Your task to perform on an android device: open sync settings in chrome Image 0: 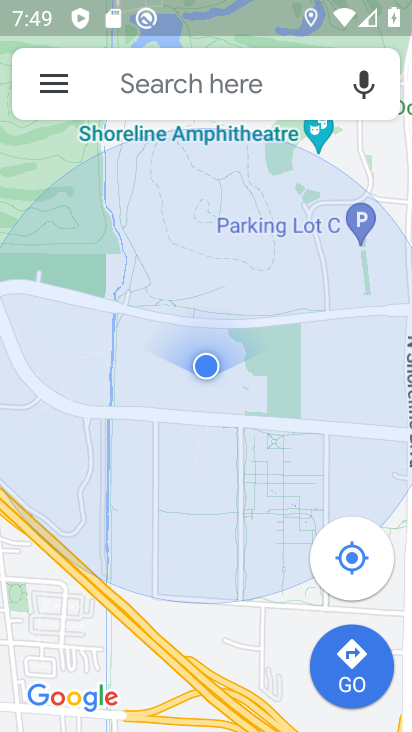
Step 0: press back button
Your task to perform on an android device: open sync settings in chrome Image 1: 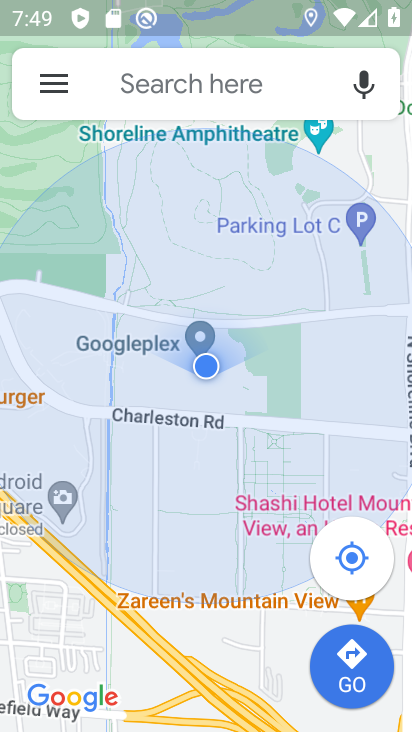
Step 1: press back button
Your task to perform on an android device: open sync settings in chrome Image 2: 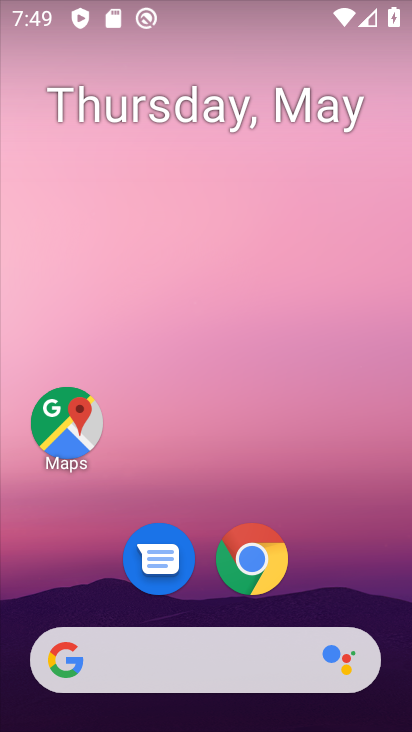
Step 2: click (252, 561)
Your task to perform on an android device: open sync settings in chrome Image 3: 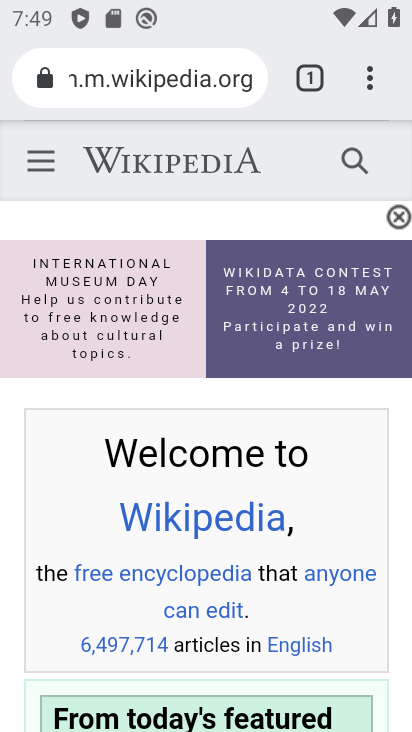
Step 3: click (371, 76)
Your task to perform on an android device: open sync settings in chrome Image 4: 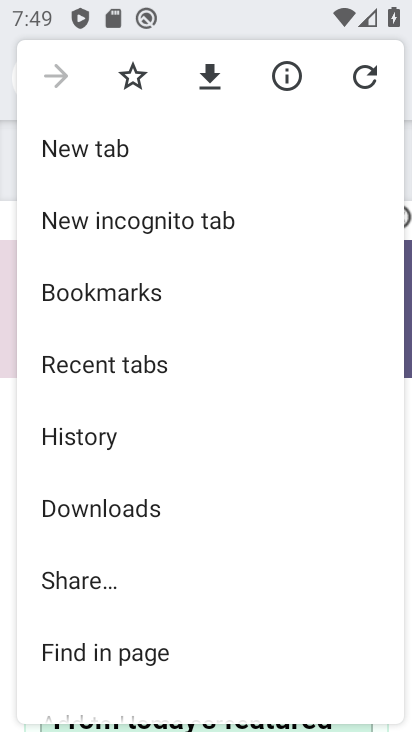
Step 4: drag from (155, 559) to (171, 444)
Your task to perform on an android device: open sync settings in chrome Image 5: 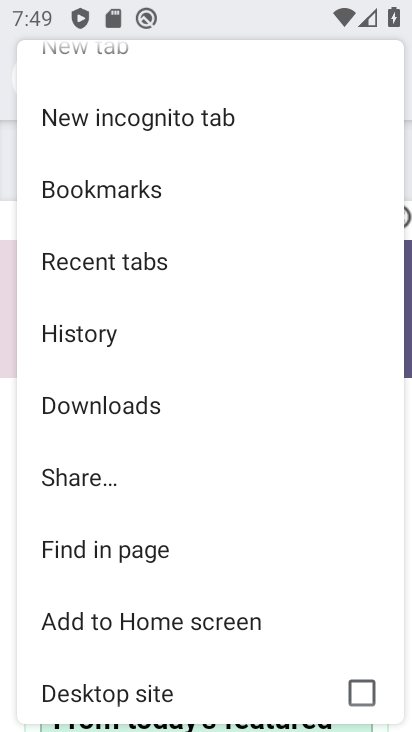
Step 5: drag from (120, 578) to (183, 455)
Your task to perform on an android device: open sync settings in chrome Image 6: 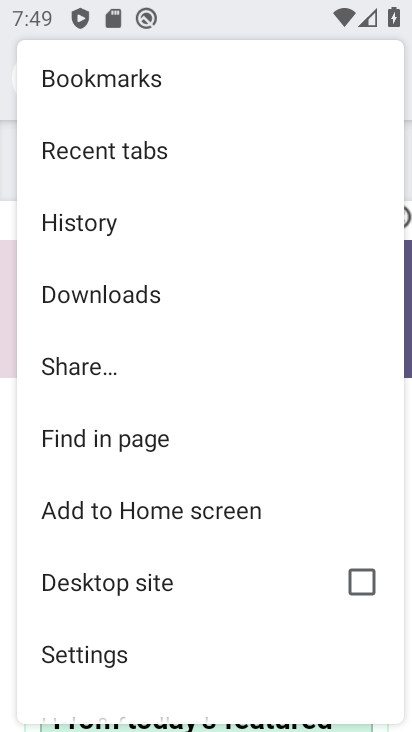
Step 6: click (100, 648)
Your task to perform on an android device: open sync settings in chrome Image 7: 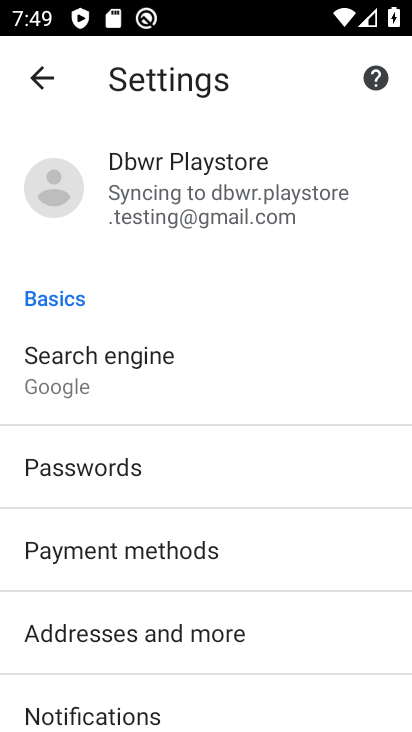
Step 7: drag from (113, 525) to (186, 421)
Your task to perform on an android device: open sync settings in chrome Image 8: 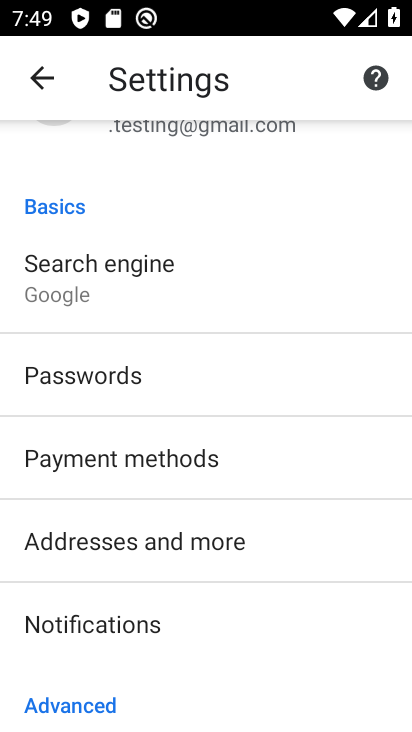
Step 8: drag from (120, 536) to (174, 429)
Your task to perform on an android device: open sync settings in chrome Image 9: 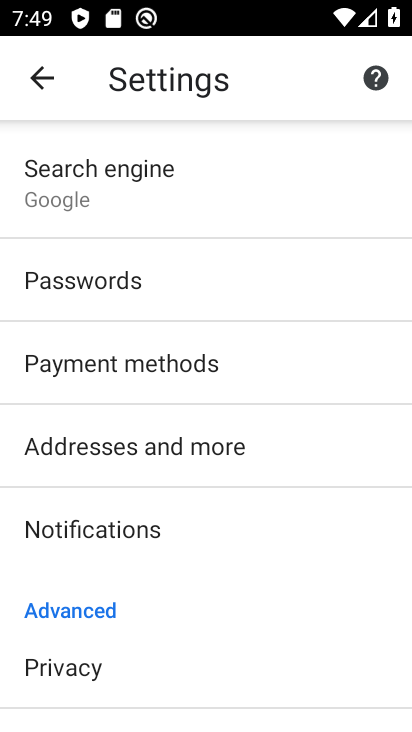
Step 9: drag from (141, 591) to (183, 466)
Your task to perform on an android device: open sync settings in chrome Image 10: 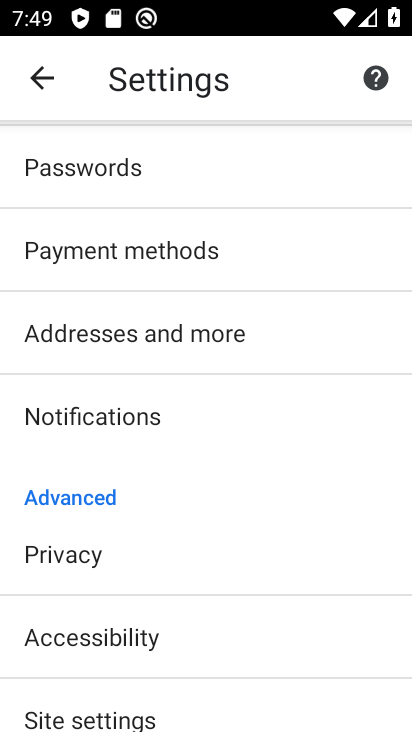
Step 10: drag from (110, 629) to (213, 487)
Your task to perform on an android device: open sync settings in chrome Image 11: 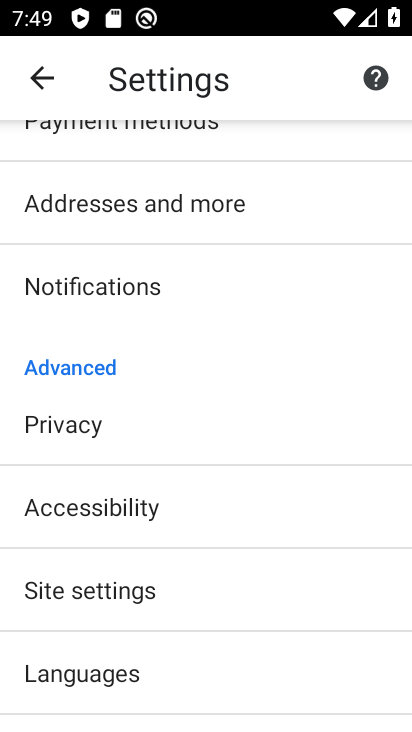
Step 11: click (134, 589)
Your task to perform on an android device: open sync settings in chrome Image 12: 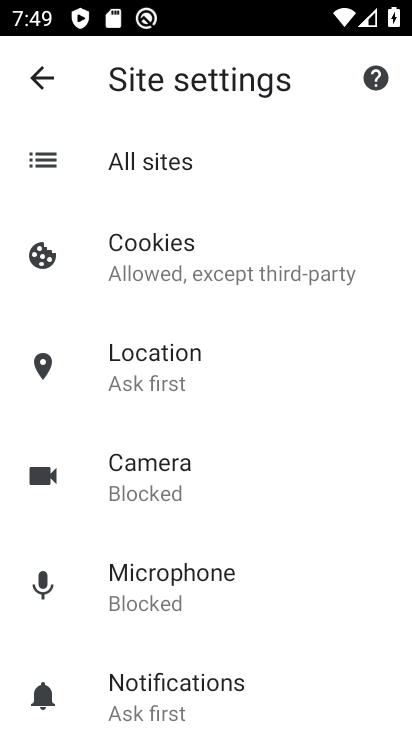
Step 12: drag from (199, 531) to (217, 465)
Your task to perform on an android device: open sync settings in chrome Image 13: 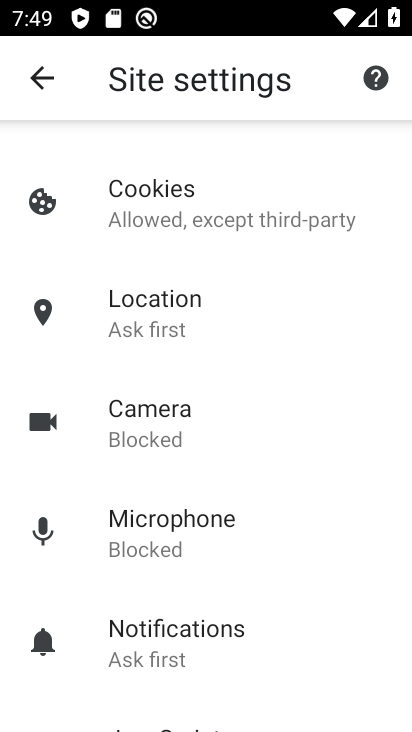
Step 13: drag from (188, 568) to (246, 457)
Your task to perform on an android device: open sync settings in chrome Image 14: 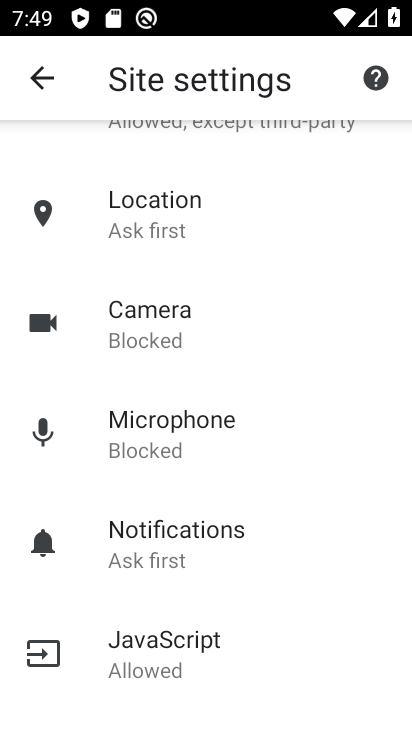
Step 14: drag from (179, 581) to (250, 462)
Your task to perform on an android device: open sync settings in chrome Image 15: 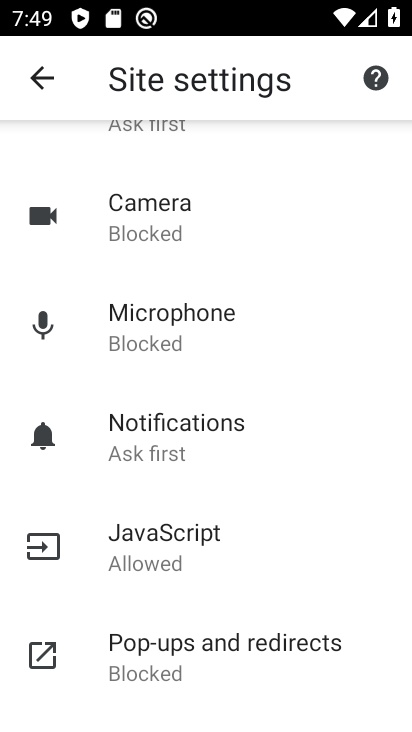
Step 15: drag from (177, 577) to (251, 487)
Your task to perform on an android device: open sync settings in chrome Image 16: 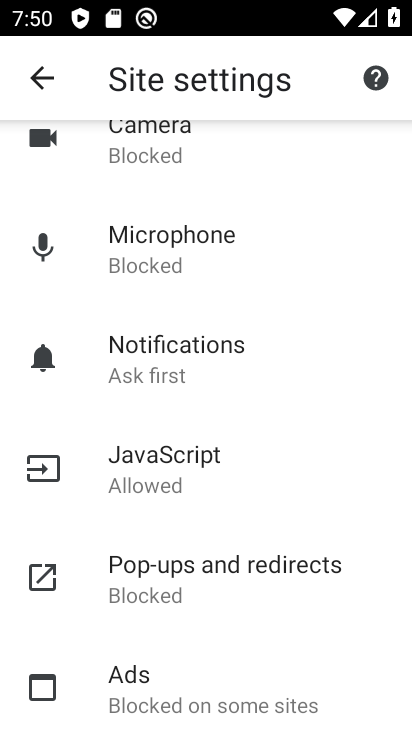
Step 16: drag from (178, 614) to (246, 494)
Your task to perform on an android device: open sync settings in chrome Image 17: 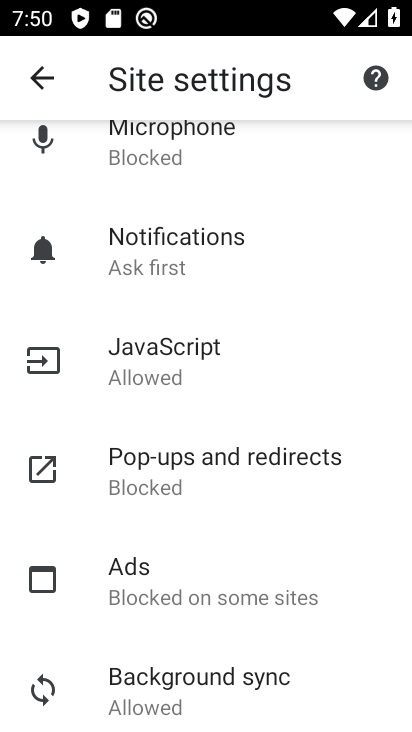
Step 17: drag from (184, 643) to (264, 519)
Your task to perform on an android device: open sync settings in chrome Image 18: 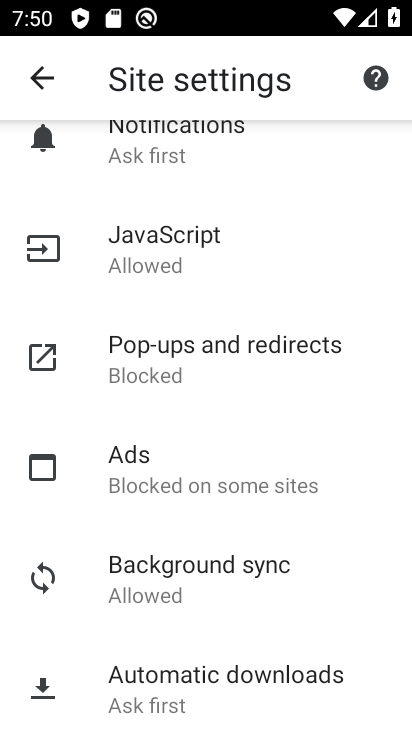
Step 18: click (227, 564)
Your task to perform on an android device: open sync settings in chrome Image 19: 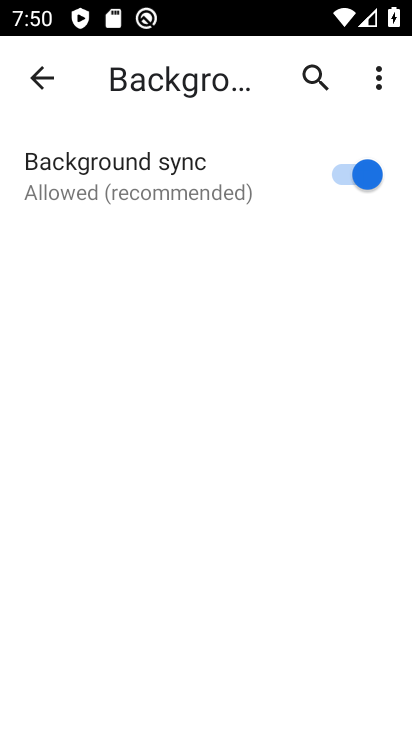
Step 19: task complete